Your task to perform on an android device: Search for "logitech g pro" on ebay, select the first entry, and add it to the cart. Image 0: 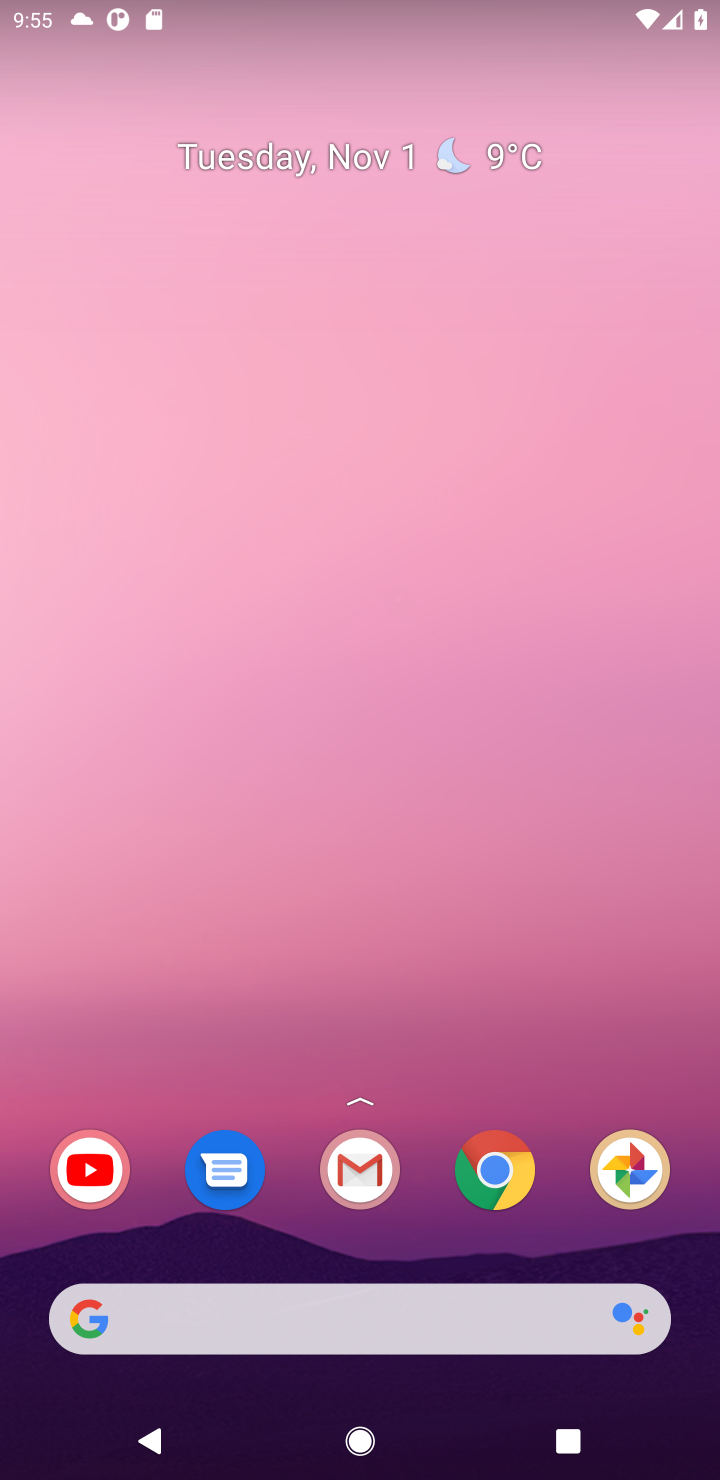
Step 0: task complete